Your task to perform on an android device: Search for Mexican restaurants on Maps Image 0: 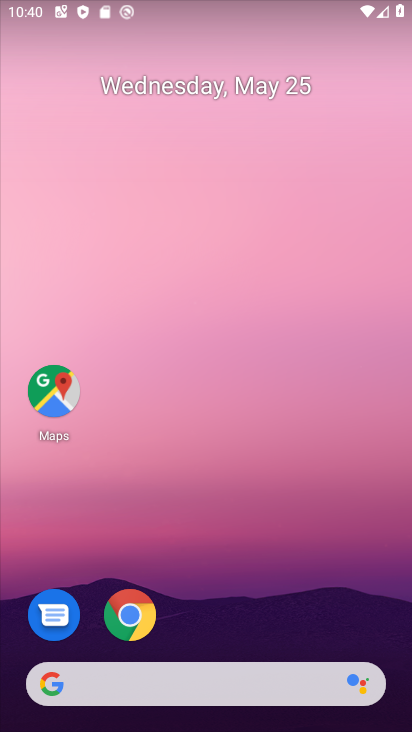
Step 0: click (47, 398)
Your task to perform on an android device: Search for Mexican restaurants on Maps Image 1: 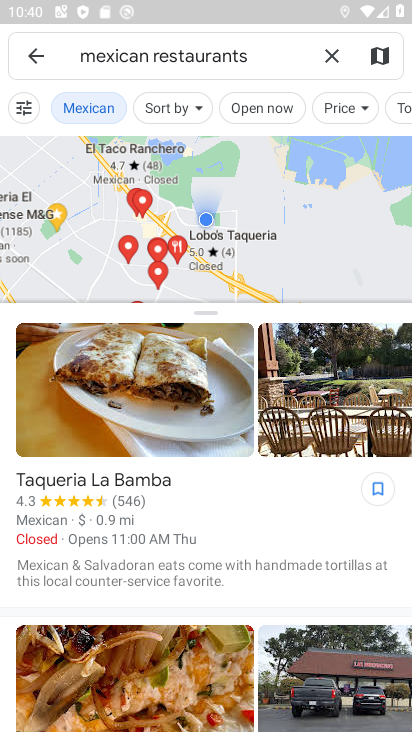
Step 1: task complete